Your task to perform on an android device: check google app version Image 0: 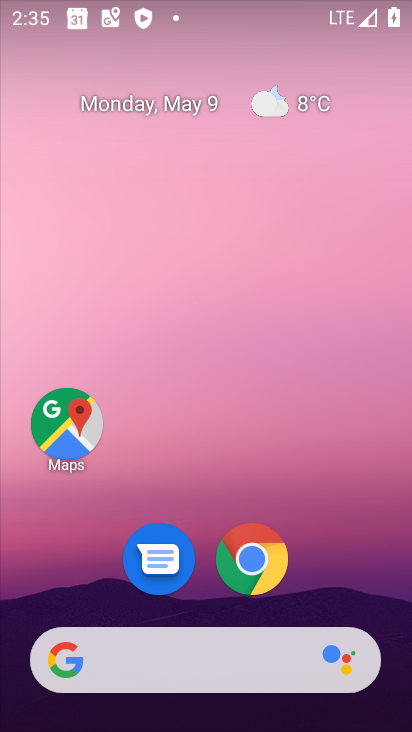
Step 0: click (144, 649)
Your task to perform on an android device: check google app version Image 1: 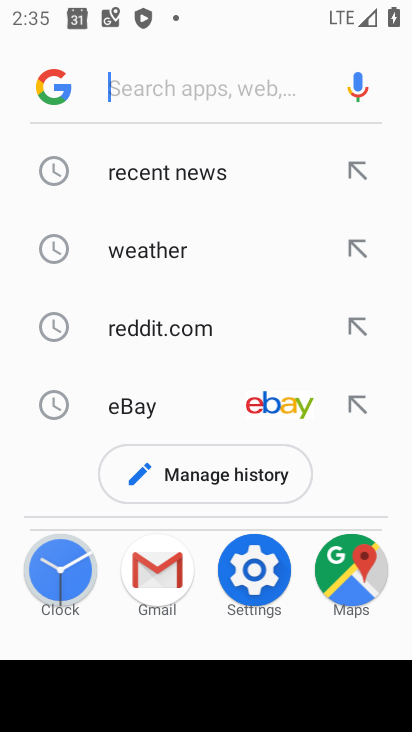
Step 1: click (57, 87)
Your task to perform on an android device: check google app version Image 2: 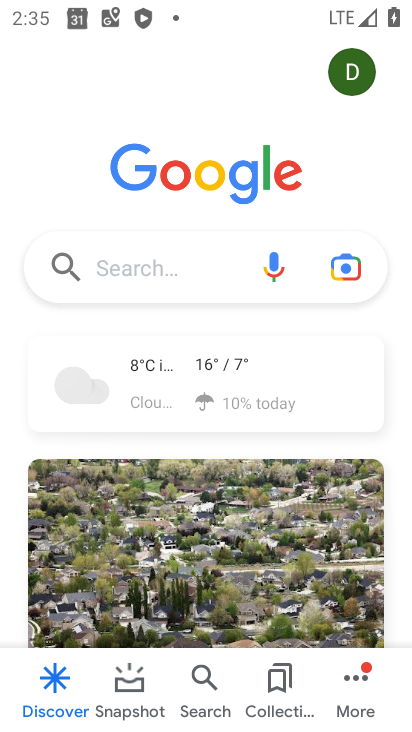
Step 2: click (352, 682)
Your task to perform on an android device: check google app version Image 3: 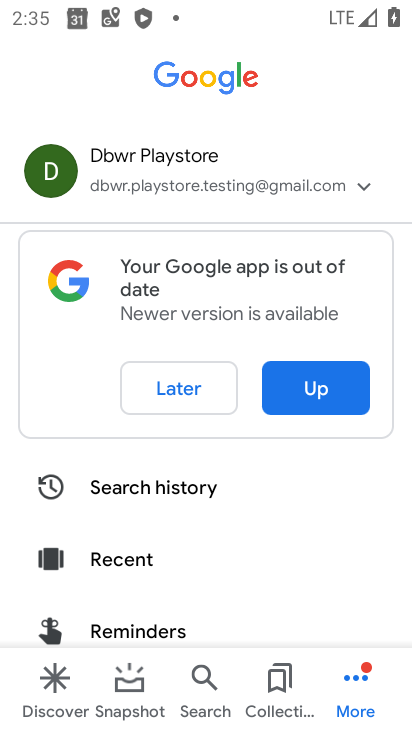
Step 3: drag from (202, 511) to (194, 134)
Your task to perform on an android device: check google app version Image 4: 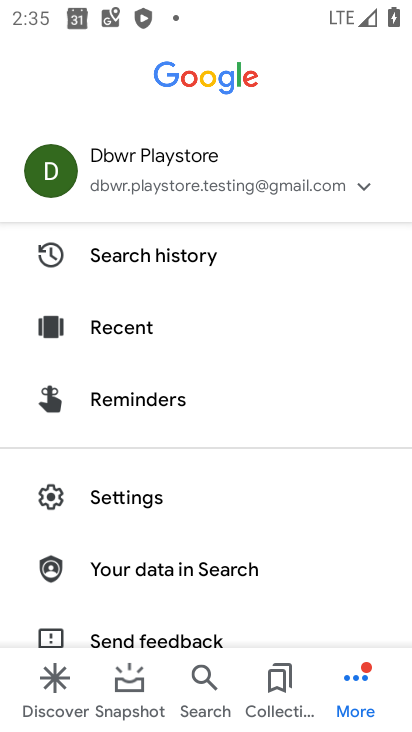
Step 4: click (148, 495)
Your task to perform on an android device: check google app version Image 5: 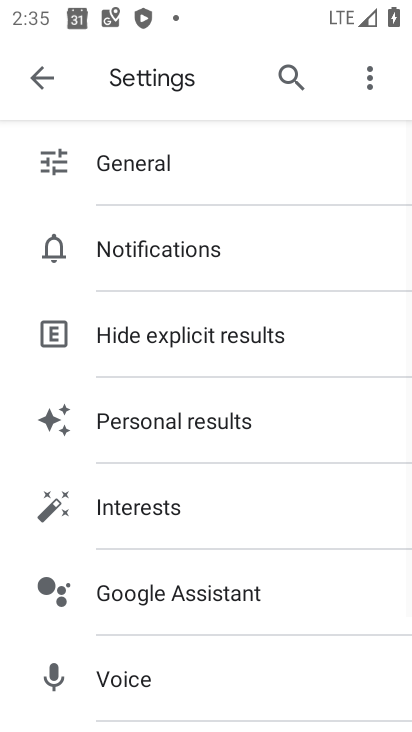
Step 5: drag from (288, 428) to (258, 115)
Your task to perform on an android device: check google app version Image 6: 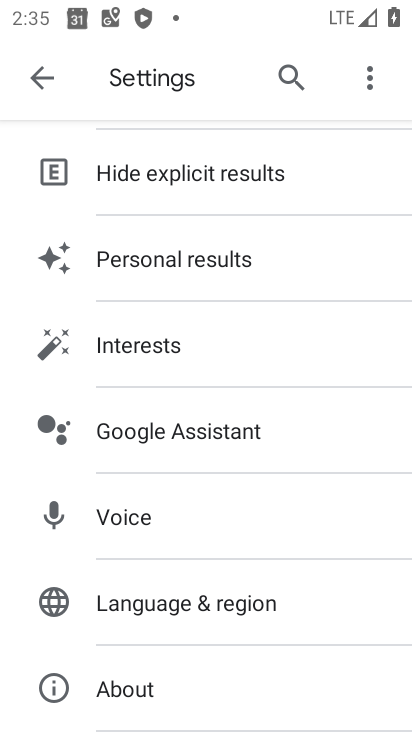
Step 6: click (112, 681)
Your task to perform on an android device: check google app version Image 7: 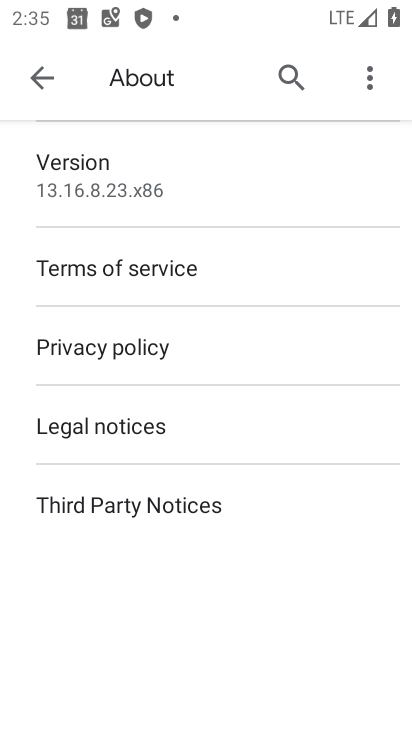
Step 7: task complete